Your task to perform on an android device: Show the shopping cart on ebay.com. Search for acer predator on ebay.com, select the first entry, add it to the cart, then select checkout. Image 0: 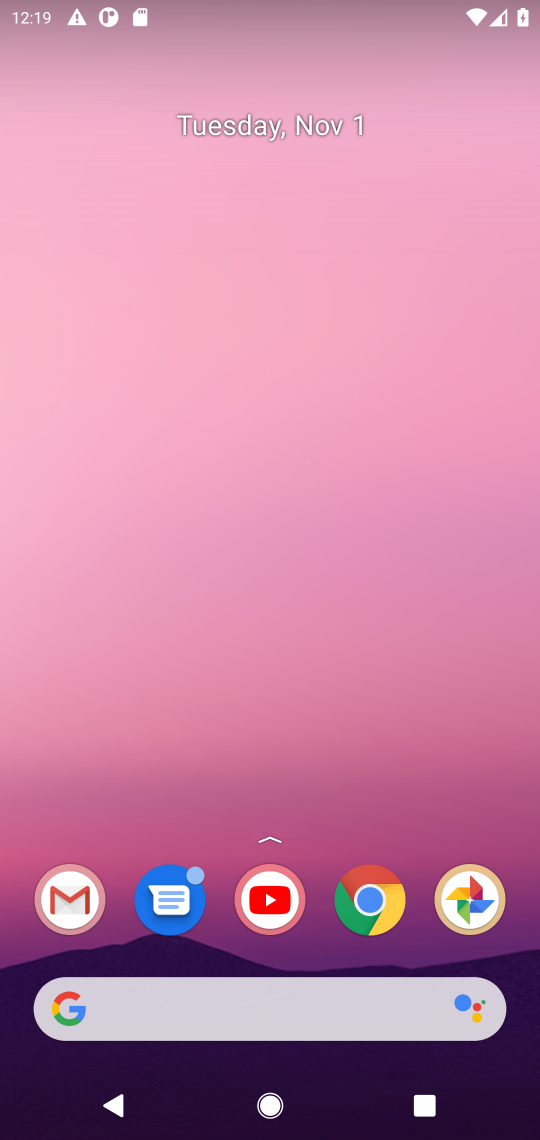
Step 0: click (350, 906)
Your task to perform on an android device: Show the shopping cart on ebay.com. Search for acer predator on ebay.com, select the first entry, add it to the cart, then select checkout. Image 1: 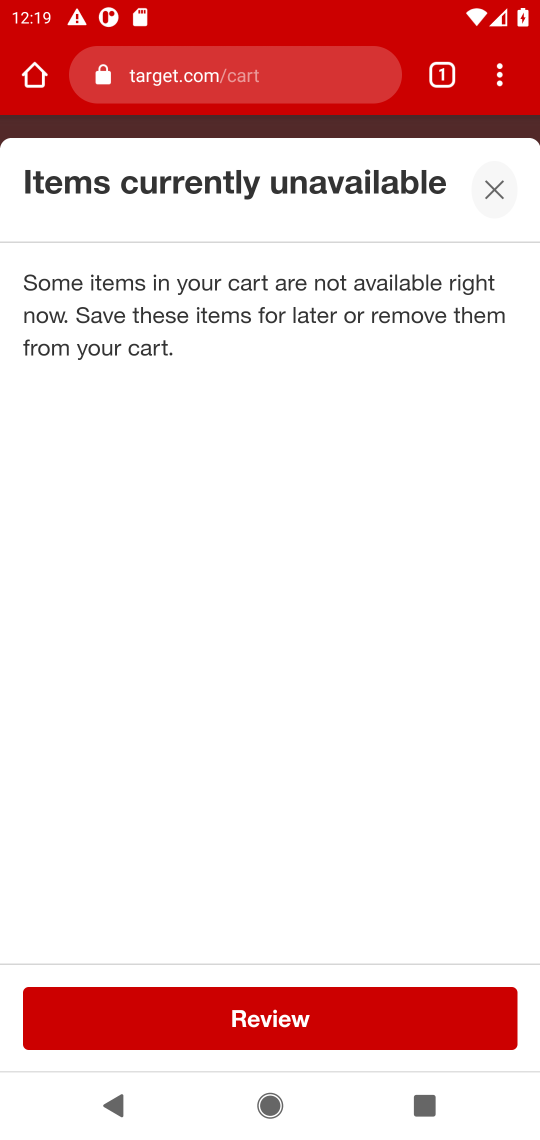
Step 1: click (237, 59)
Your task to perform on an android device: Show the shopping cart on ebay.com. Search for acer predator on ebay.com, select the first entry, add it to the cart, then select checkout. Image 2: 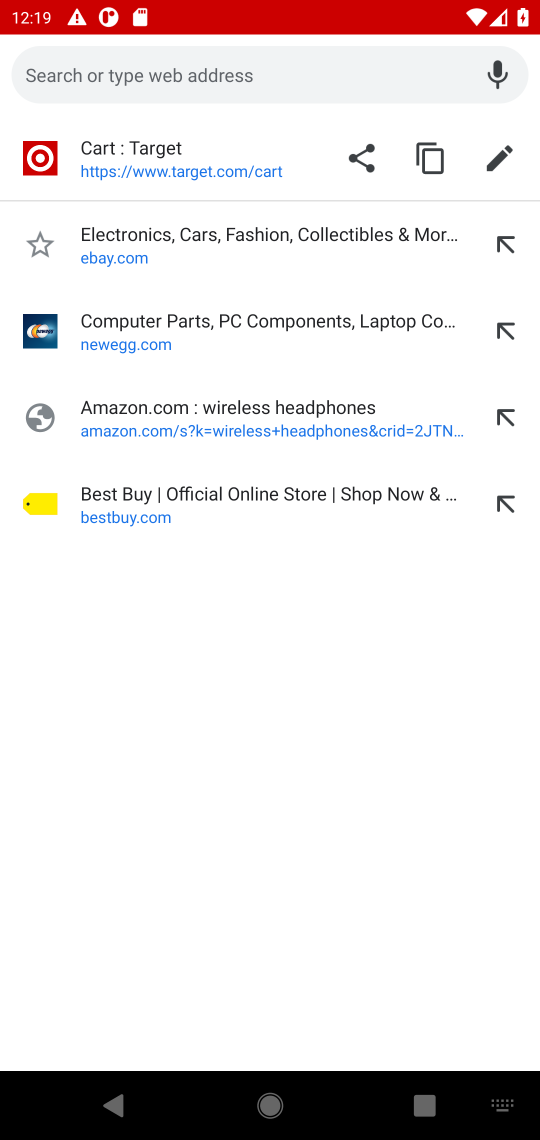
Step 2: type "ebay.com"
Your task to perform on an android device: Show the shopping cart on ebay.com. Search for acer predator on ebay.com, select the first entry, add it to the cart, then select checkout. Image 3: 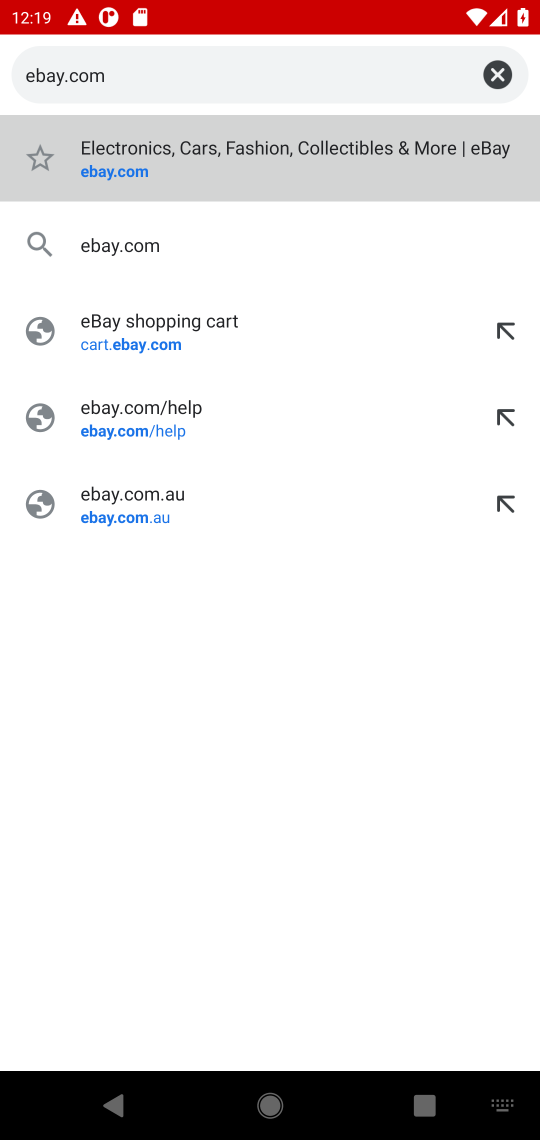
Step 3: press enter
Your task to perform on an android device: Show the shopping cart on ebay.com. Search for acer predator on ebay.com, select the first entry, add it to the cart, then select checkout. Image 4: 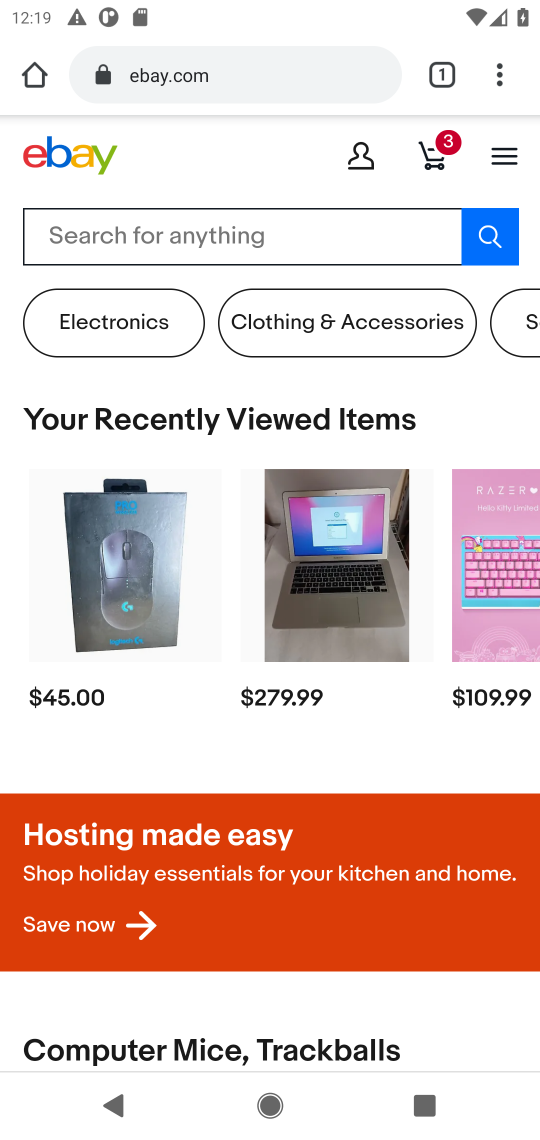
Step 4: click (428, 154)
Your task to perform on an android device: Show the shopping cart on ebay.com. Search for acer predator on ebay.com, select the first entry, add it to the cart, then select checkout. Image 5: 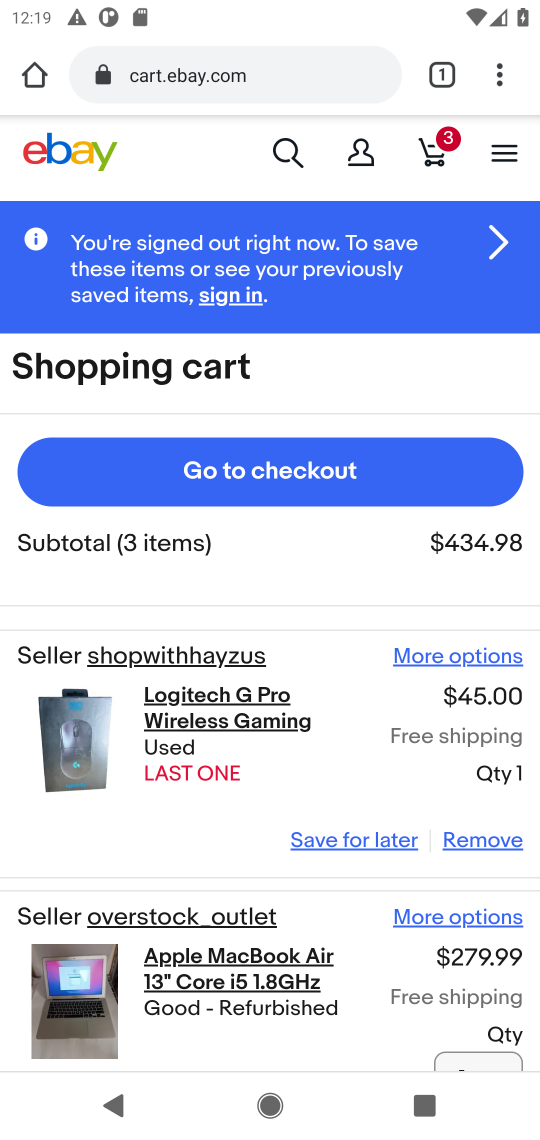
Step 5: drag from (233, 844) to (298, 389)
Your task to perform on an android device: Show the shopping cart on ebay.com. Search for acer predator on ebay.com, select the first entry, add it to the cart, then select checkout. Image 6: 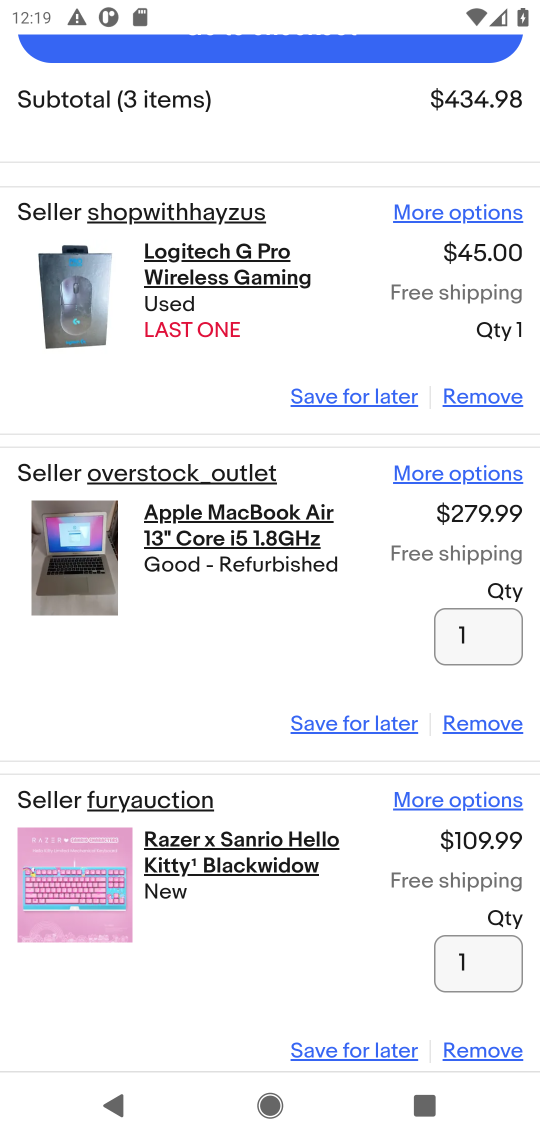
Step 6: drag from (258, 730) to (269, 1025)
Your task to perform on an android device: Show the shopping cart on ebay.com. Search for acer predator on ebay.com, select the first entry, add it to the cart, then select checkout. Image 7: 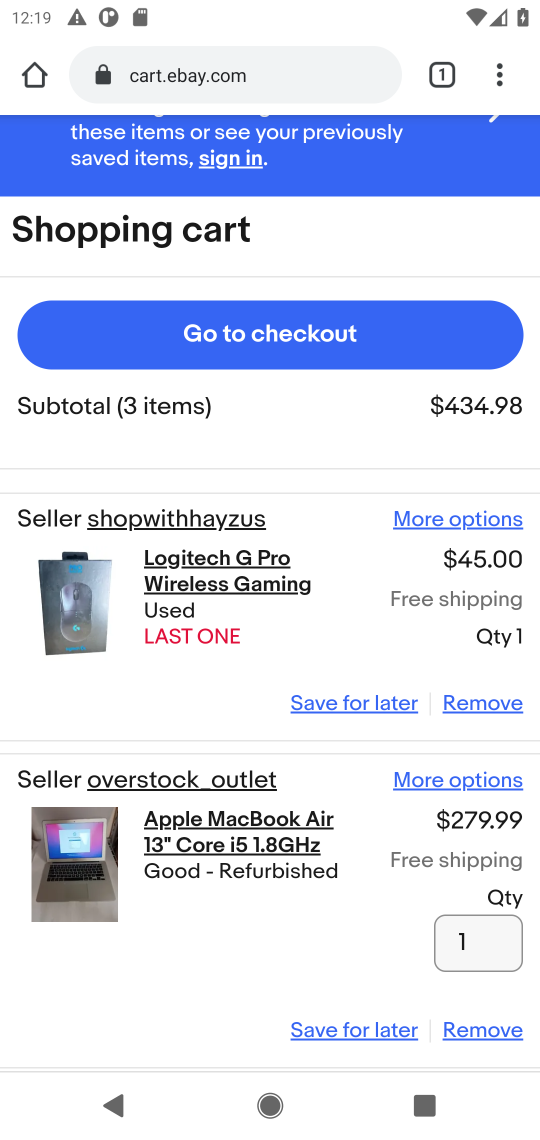
Step 7: drag from (377, 214) to (383, 837)
Your task to perform on an android device: Show the shopping cart on ebay.com. Search for acer predator on ebay.com, select the first entry, add it to the cart, then select checkout. Image 8: 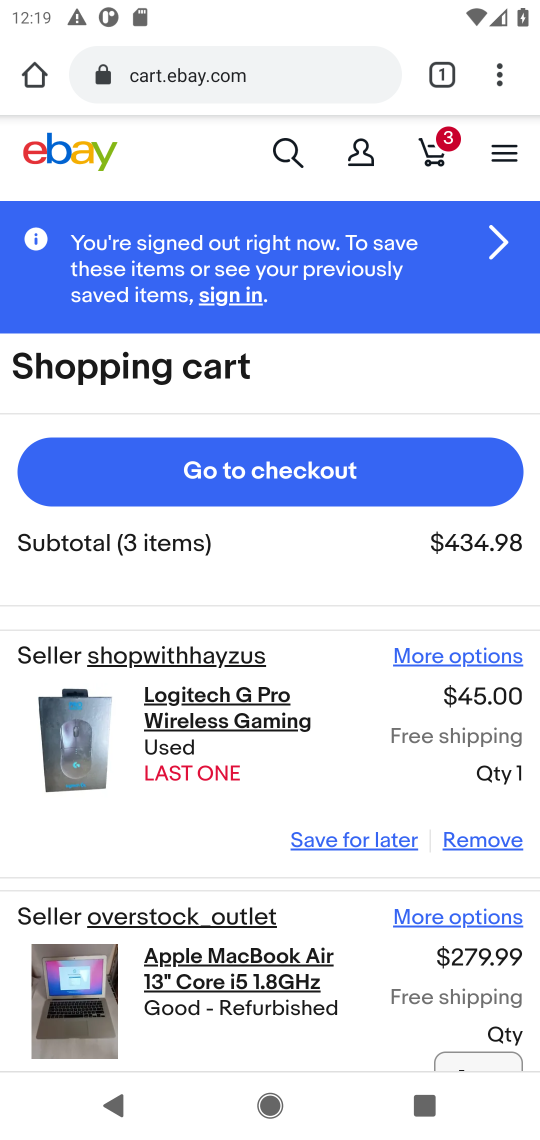
Step 8: click (284, 148)
Your task to perform on an android device: Show the shopping cart on ebay.com. Search for acer predator on ebay.com, select the first entry, add it to the cart, then select checkout. Image 9: 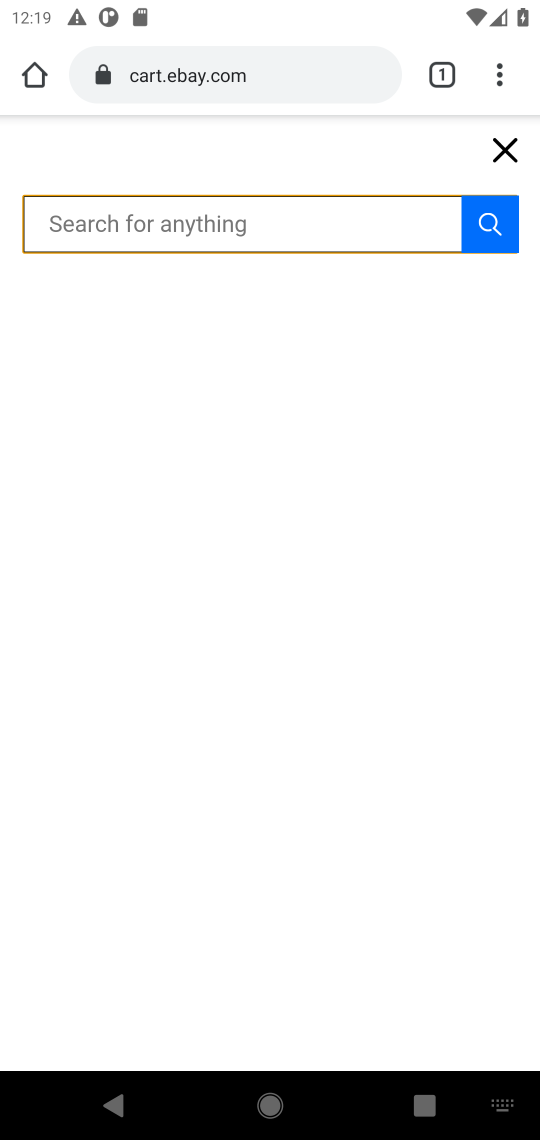
Step 9: type "acer predator "
Your task to perform on an android device: Show the shopping cart on ebay.com. Search for acer predator on ebay.com, select the first entry, add it to the cart, then select checkout. Image 10: 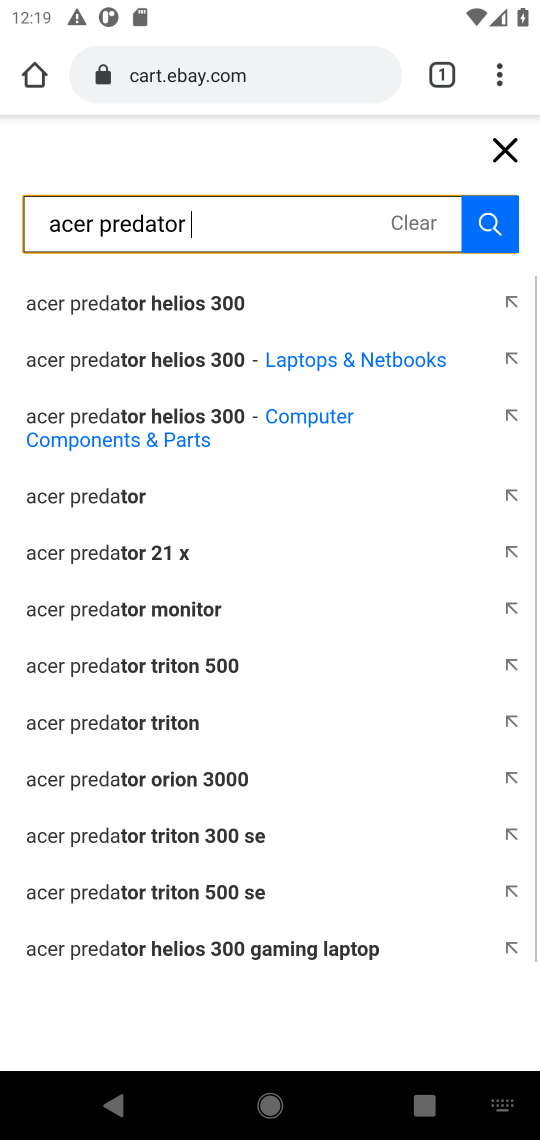
Step 10: press enter
Your task to perform on an android device: Show the shopping cart on ebay.com. Search for acer predator on ebay.com, select the first entry, add it to the cart, then select checkout. Image 11: 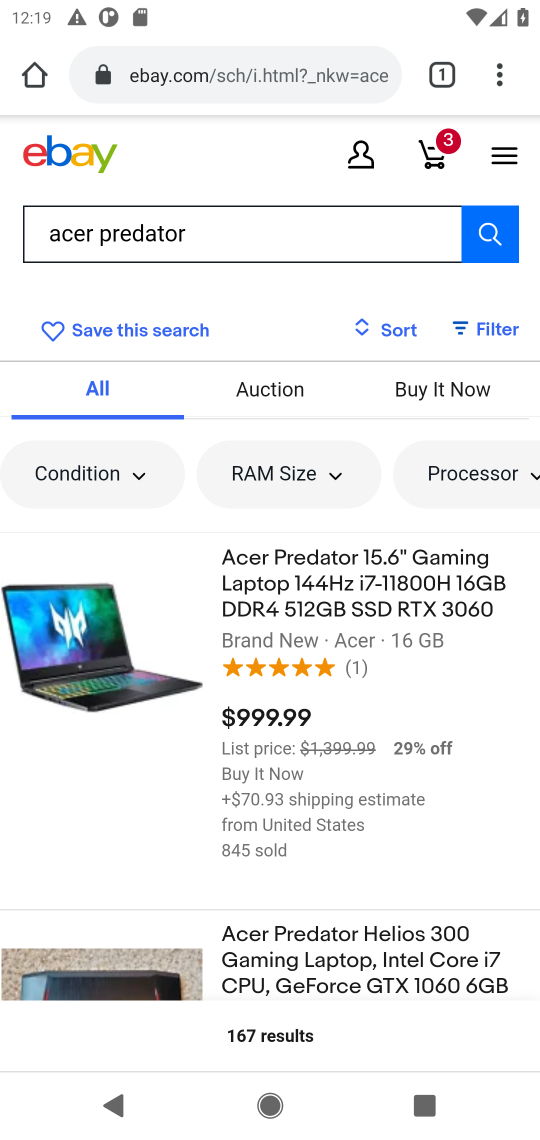
Step 11: click (67, 663)
Your task to perform on an android device: Show the shopping cart on ebay.com. Search for acer predator on ebay.com, select the first entry, add it to the cart, then select checkout. Image 12: 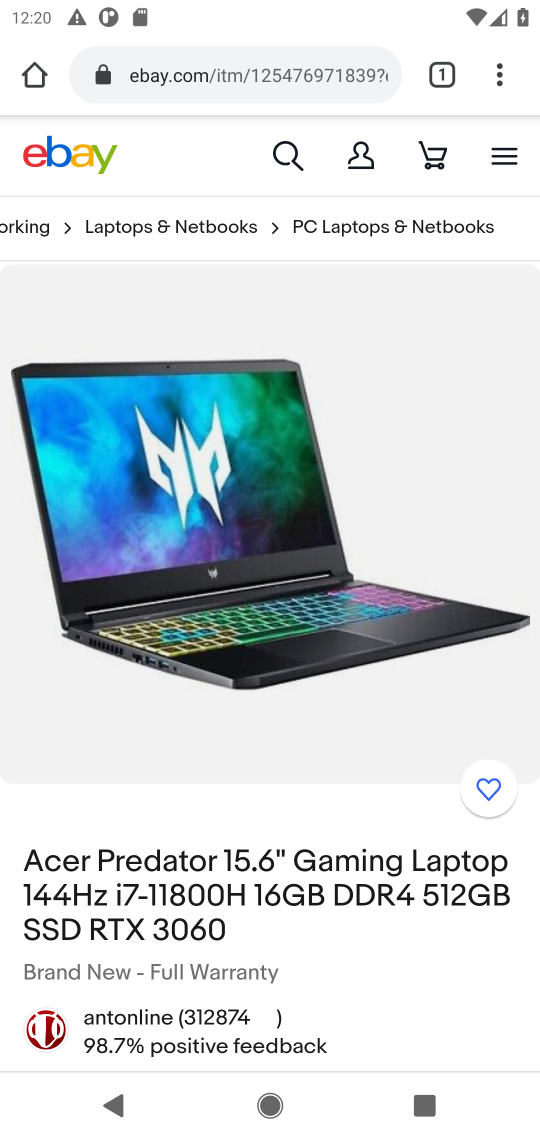
Step 12: drag from (237, 900) to (221, 356)
Your task to perform on an android device: Show the shopping cart on ebay.com. Search for acer predator on ebay.com, select the first entry, add it to the cart, then select checkout. Image 13: 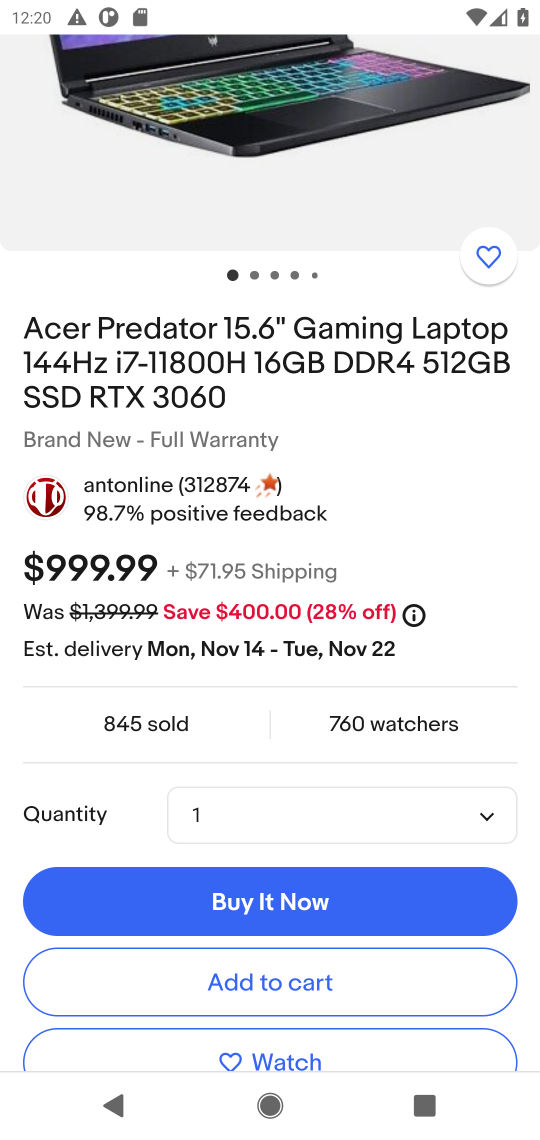
Step 13: click (284, 986)
Your task to perform on an android device: Show the shopping cart on ebay.com. Search for acer predator on ebay.com, select the first entry, add it to the cart, then select checkout. Image 14: 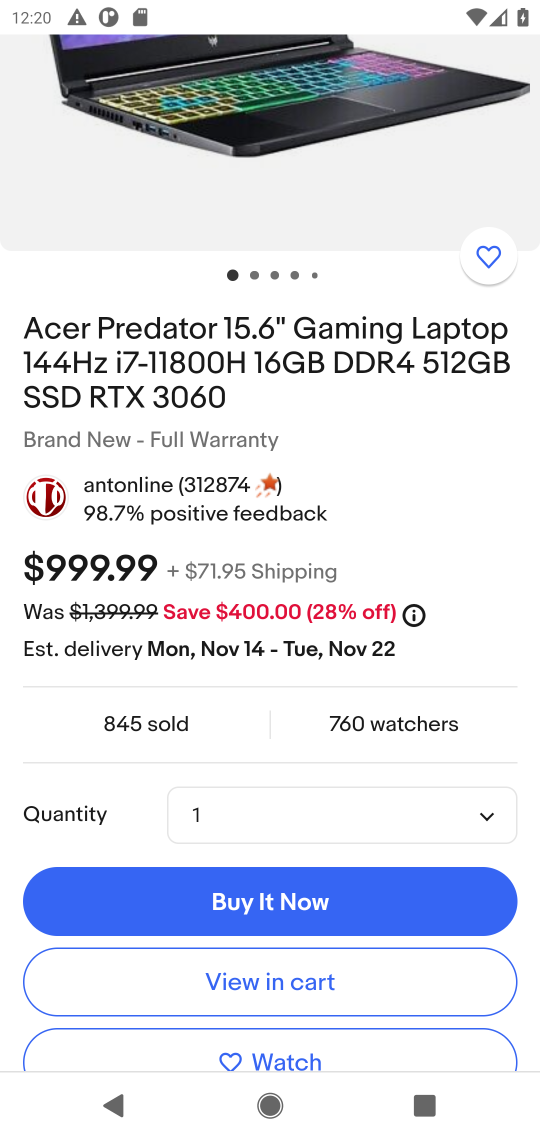
Step 14: drag from (340, 263) to (339, 843)
Your task to perform on an android device: Show the shopping cart on ebay.com. Search for acer predator on ebay.com, select the first entry, add it to the cart, then select checkout. Image 15: 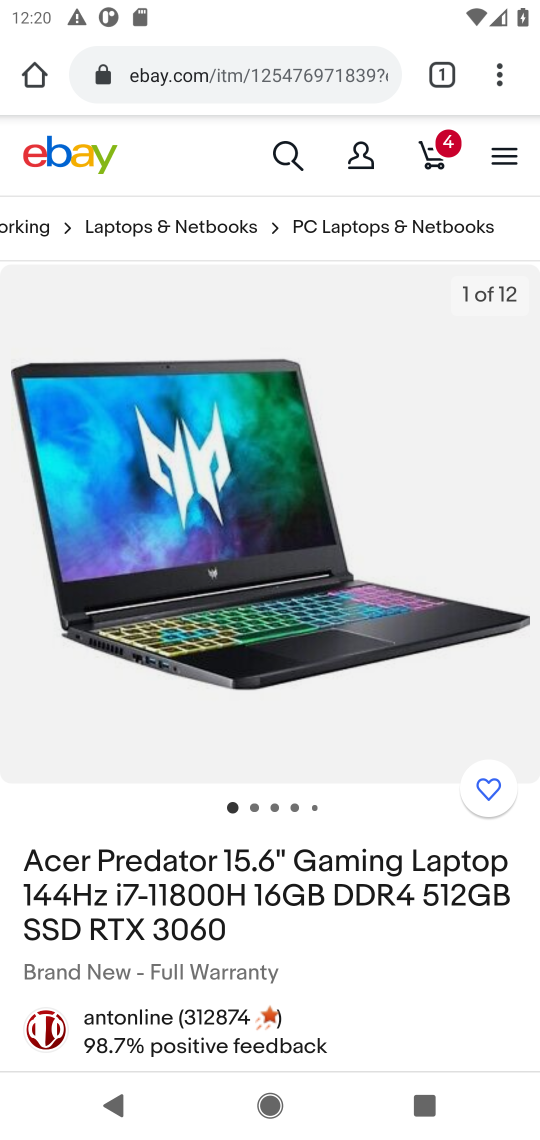
Step 15: click (436, 160)
Your task to perform on an android device: Show the shopping cart on ebay.com. Search for acer predator on ebay.com, select the first entry, add it to the cart, then select checkout. Image 16: 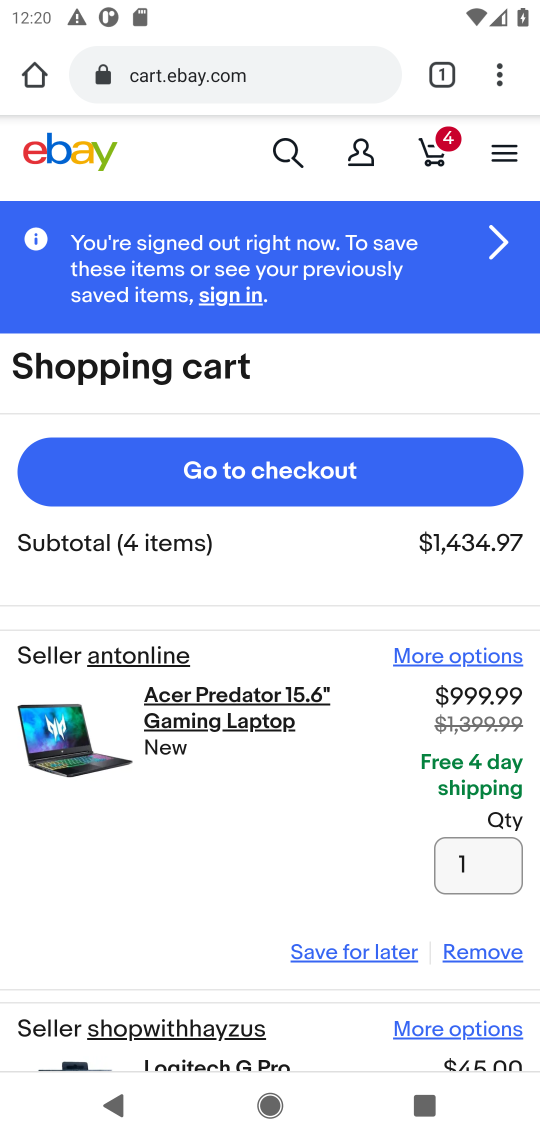
Step 16: click (320, 472)
Your task to perform on an android device: Show the shopping cart on ebay.com. Search for acer predator on ebay.com, select the first entry, add it to the cart, then select checkout. Image 17: 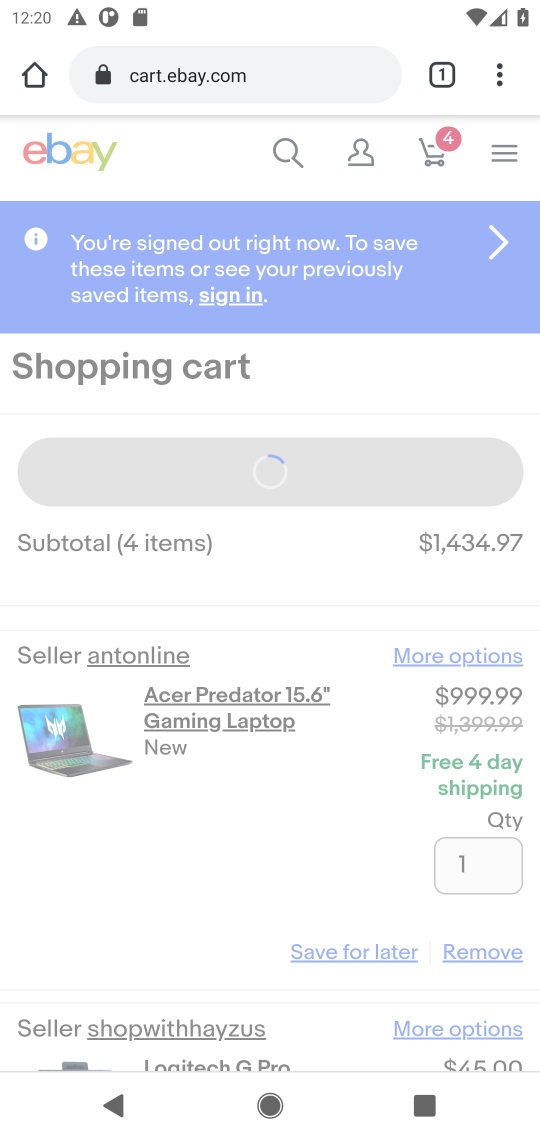
Step 17: task complete